Your task to perform on an android device: What's the weather going to be tomorrow? Image 0: 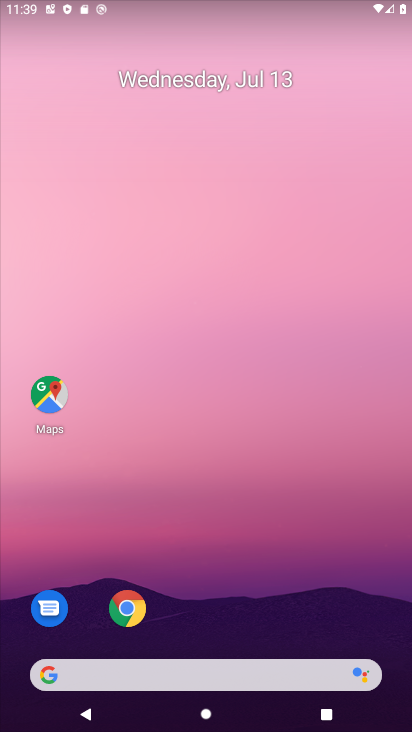
Step 0: click (252, 697)
Your task to perform on an android device: What's the weather going to be tomorrow? Image 1: 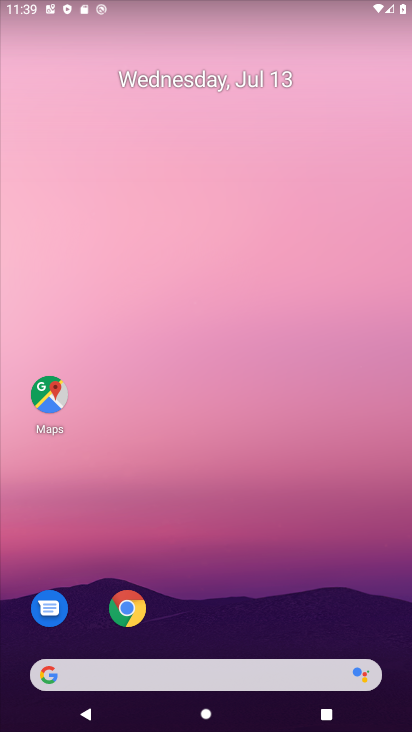
Step 1: click (284, 666)
Your task to perform on an android device: What's the weather going to be tomorrow? Image 2: 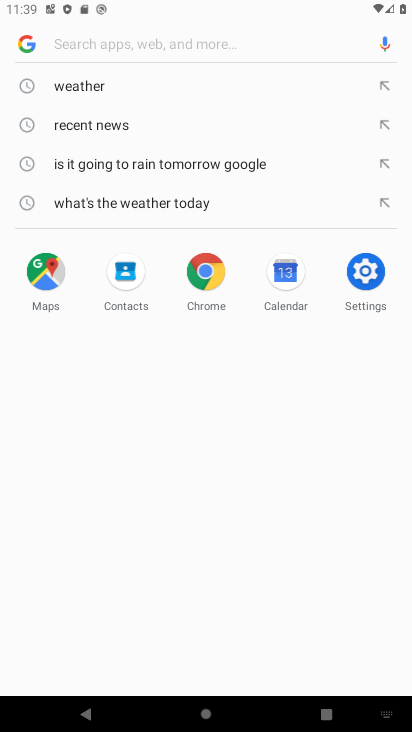
Step 2: type "What's the weather going to be tomorrow?"
Your task to perform on an android device: What's the weather going to be tomorrow? Image 3: 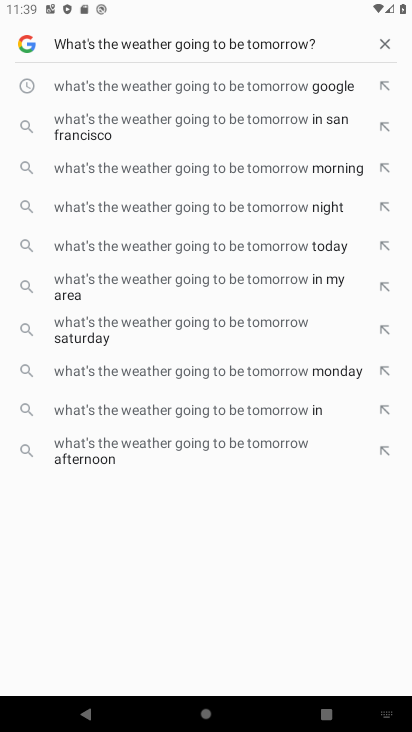
Step 3: press enter
Your task to perform on an android device: What's the weather going to be tomorrow? Image 4: 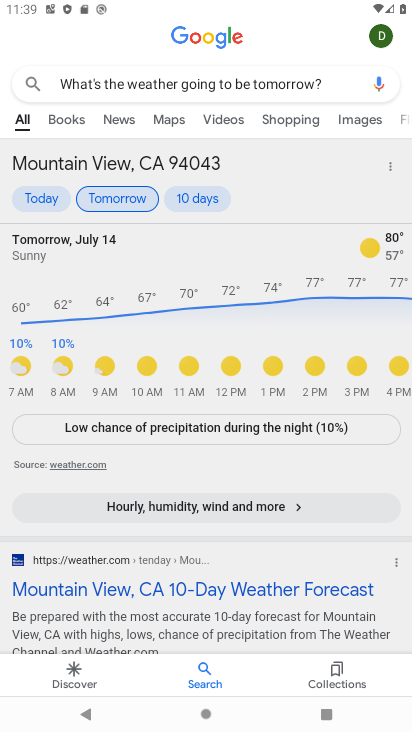
Step 4: task complete